Your task to perform on an android device: open app "Messages" (install if not already installed) Image 0: 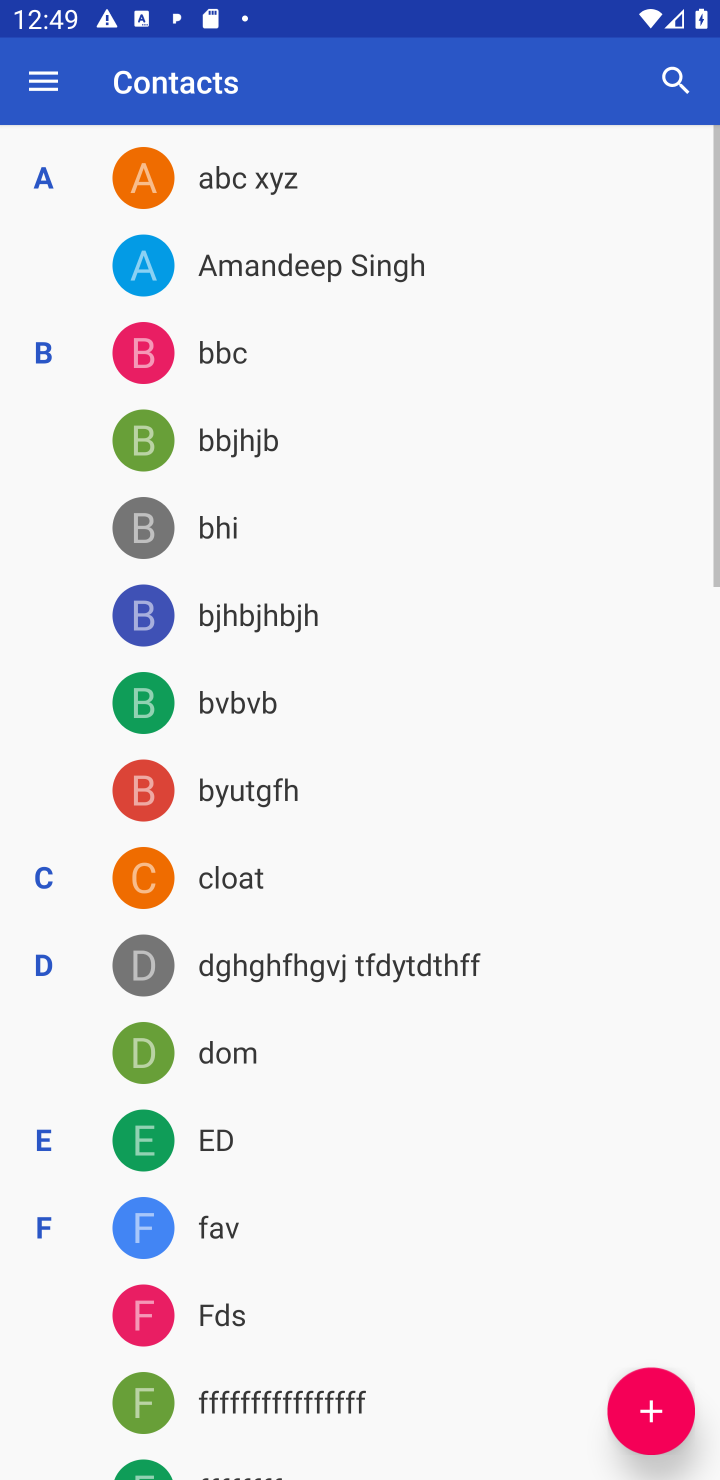
Step 0: press home button
Your task to perform on an android device: open app "Messages" (install if not already installed) Image 1: 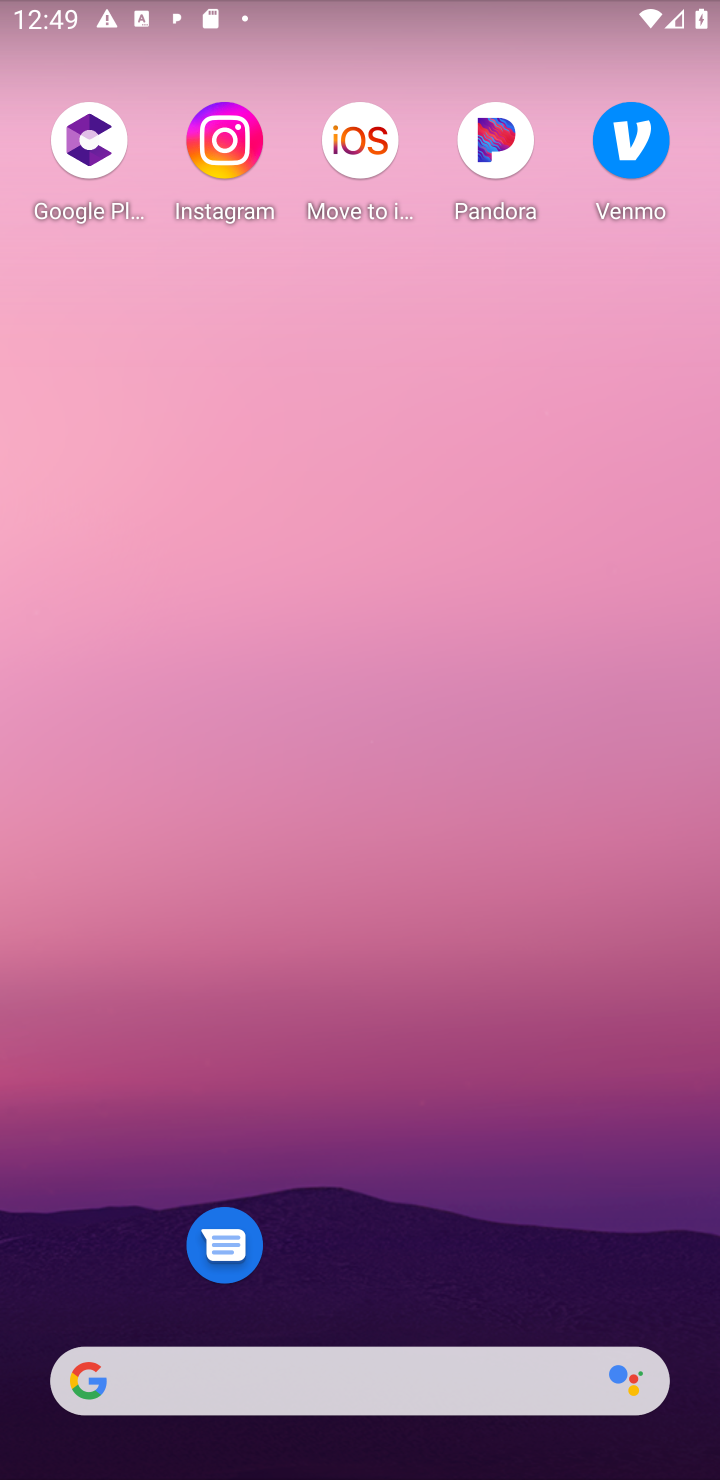
Step 1: drag from (285, 1365) to (322, 907)
Your task to perform on an android device: open app "Messages" (install if not already installed) Image 2: 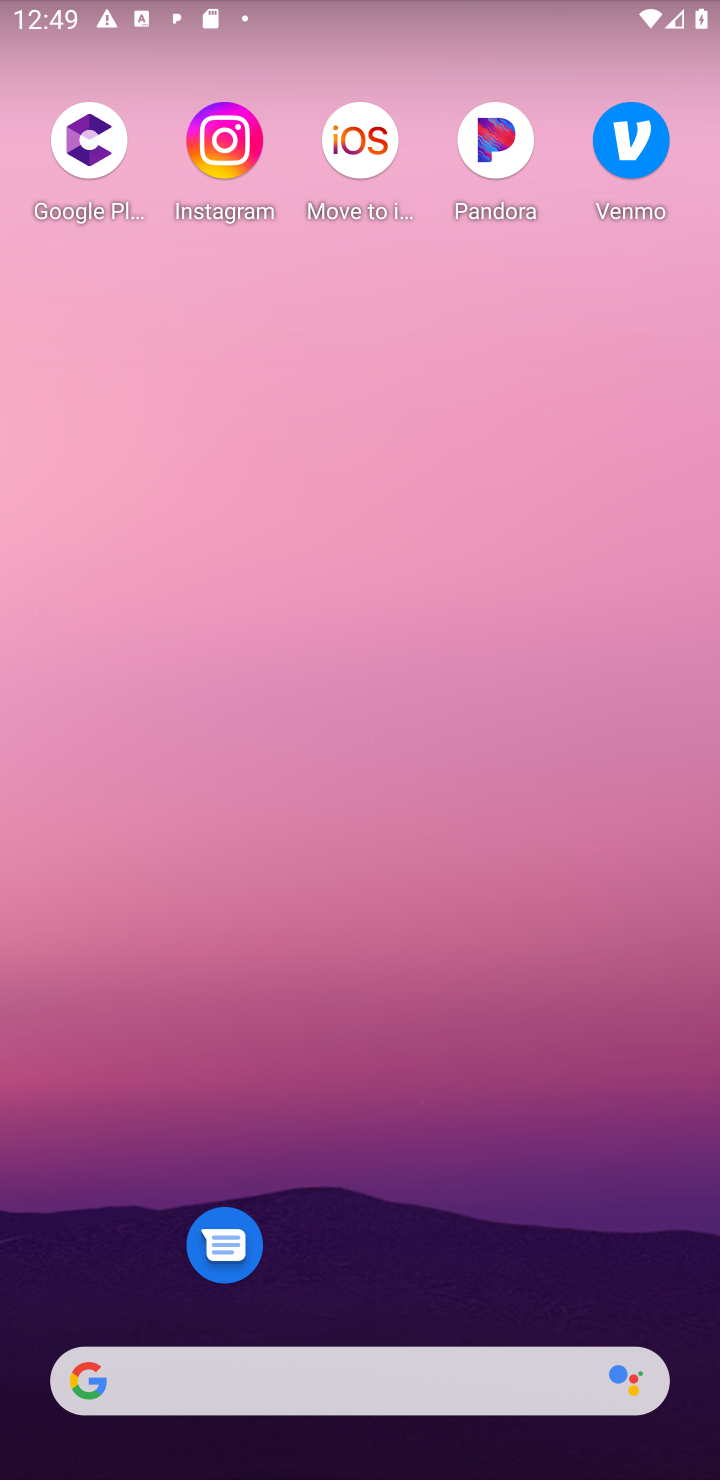
Step 2: drag from (406, 1311) to (391, 541)
Your task to perform on an android device: open app "Messages" (install if not already installed) Image 3: 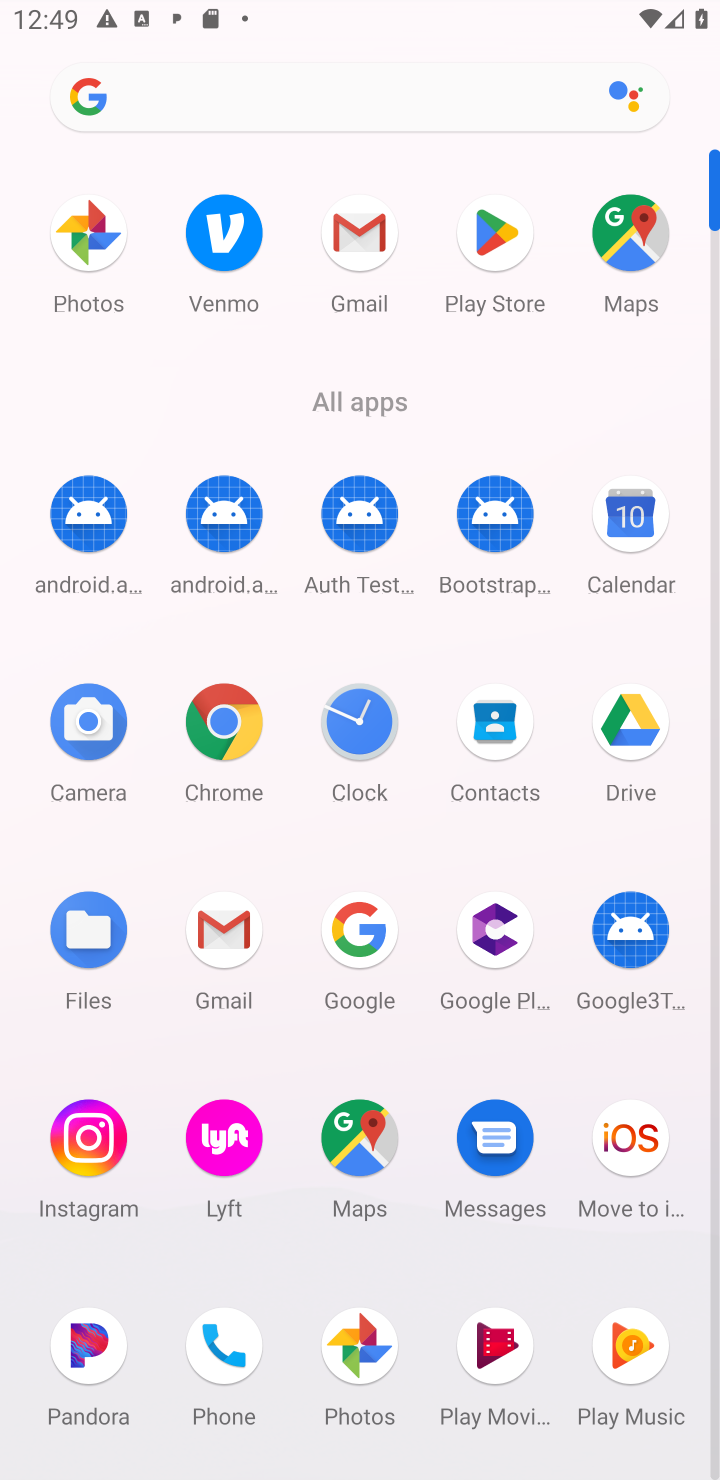
Step 3: click (493, 1139)
Your task to perform on an android device: open app "Messages" (install if not already installed) Image 4: 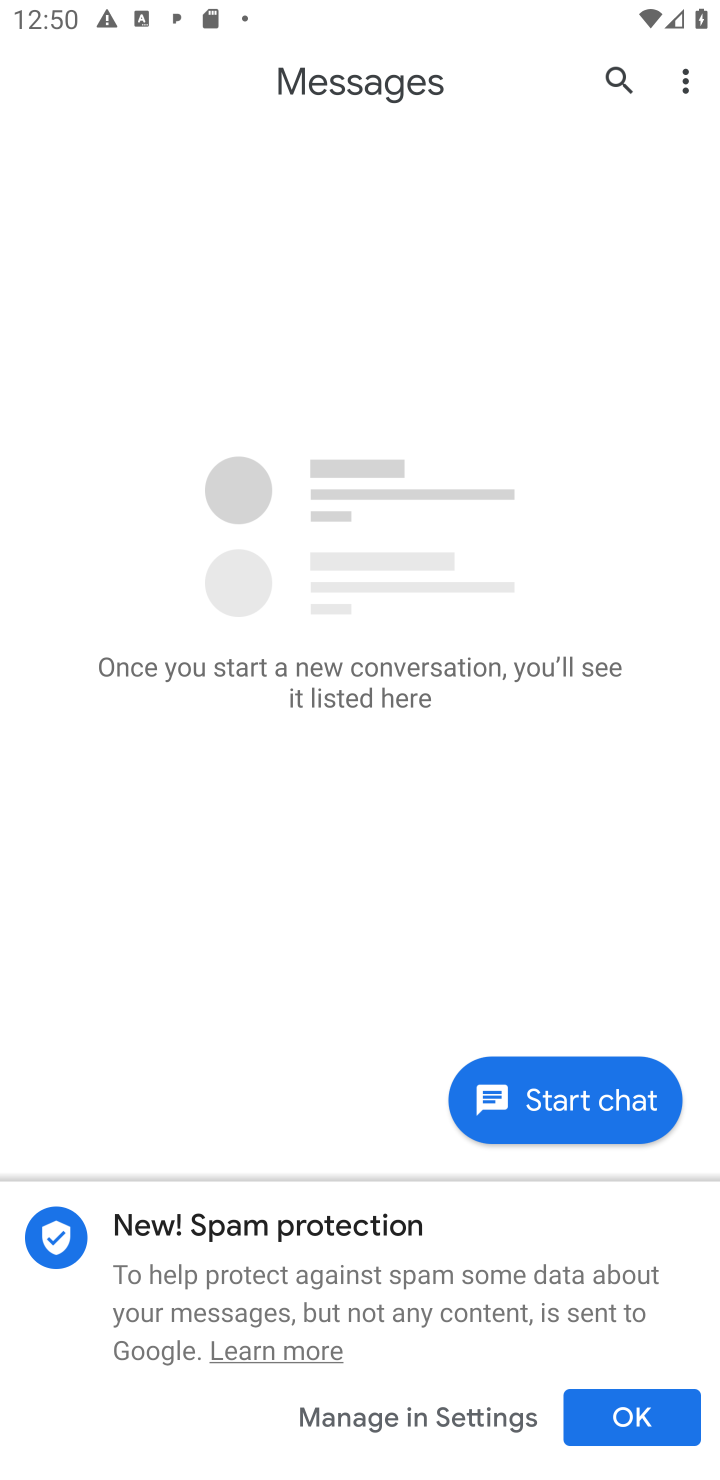
Step 4: task complete